Your task to perform on an android device: Check the weather Image 0: 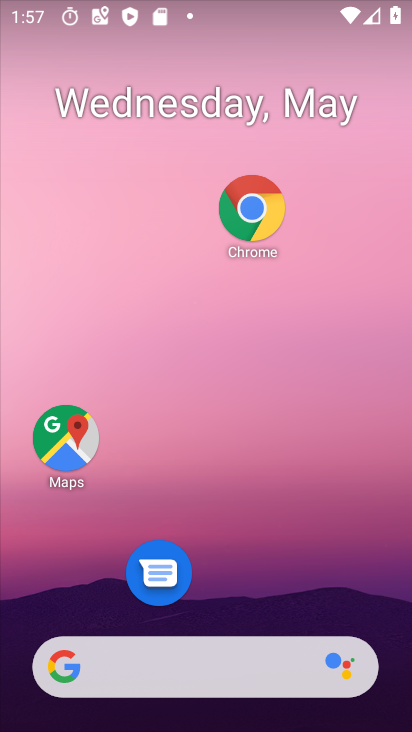
Step 0: click (198, 678)
Your task to perform on an android device: Check the weather Image 1: 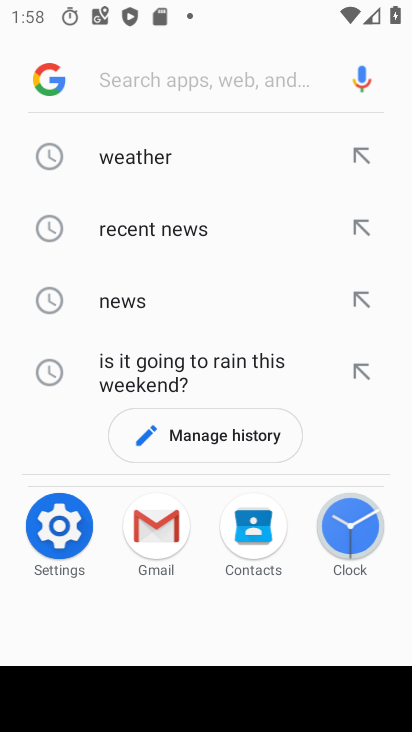
Step 1: click (151, 153)
Your task to perform on an android device: Check the weather Image 2: 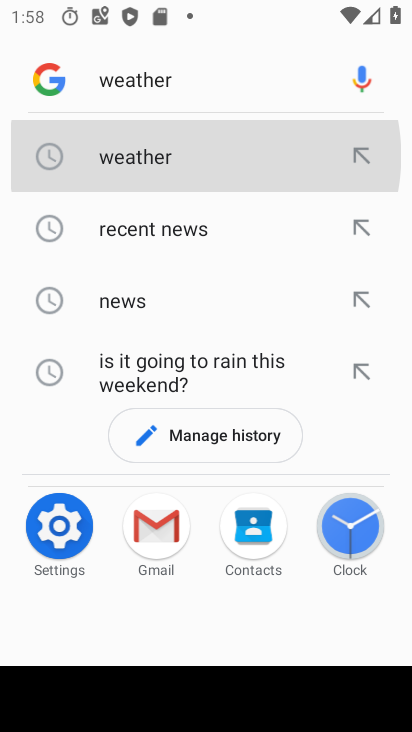
Step 2: click (245, 138)
Your task to perform on an android device: Check the weather Image 3: 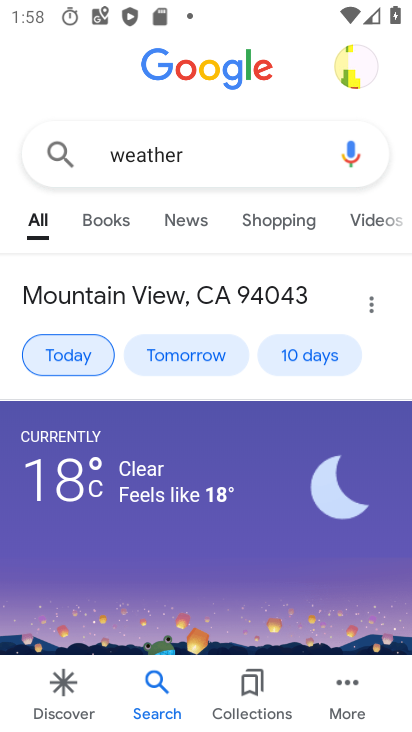
Step 3: task complete